Your task to perform on an android device: Search for "bose soundlink" on newegg, select the first entry, and add it to the cart. Image 0: 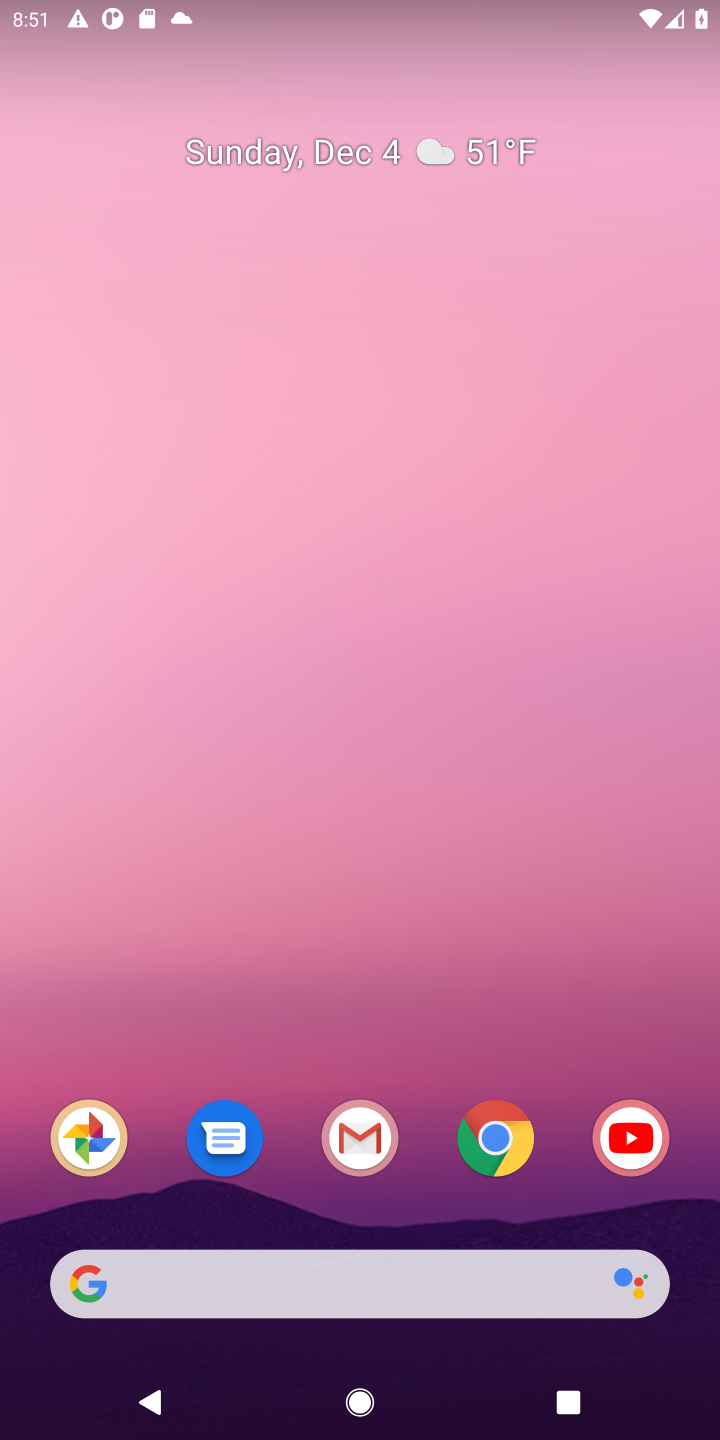
Step 0: click (498, 1126)
Your task to perform on an android device: Search for "bose soundlink" on newegg, select the first entry, and add it to the cart. Image 1: 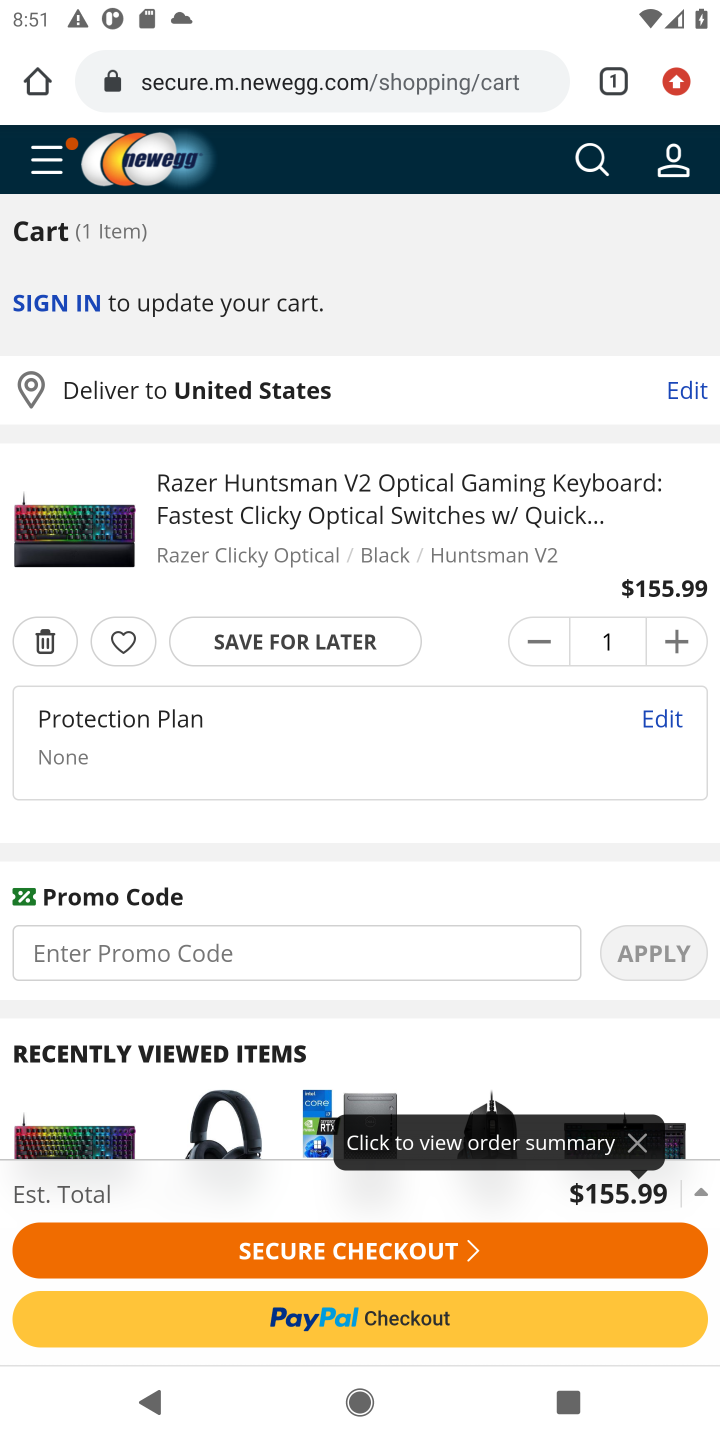
Step 1: click (595, 159)
Your task to perform on an android device: Search for "bose soundlink" on newegg, select the first entry, and add it to the cart. Image 2: 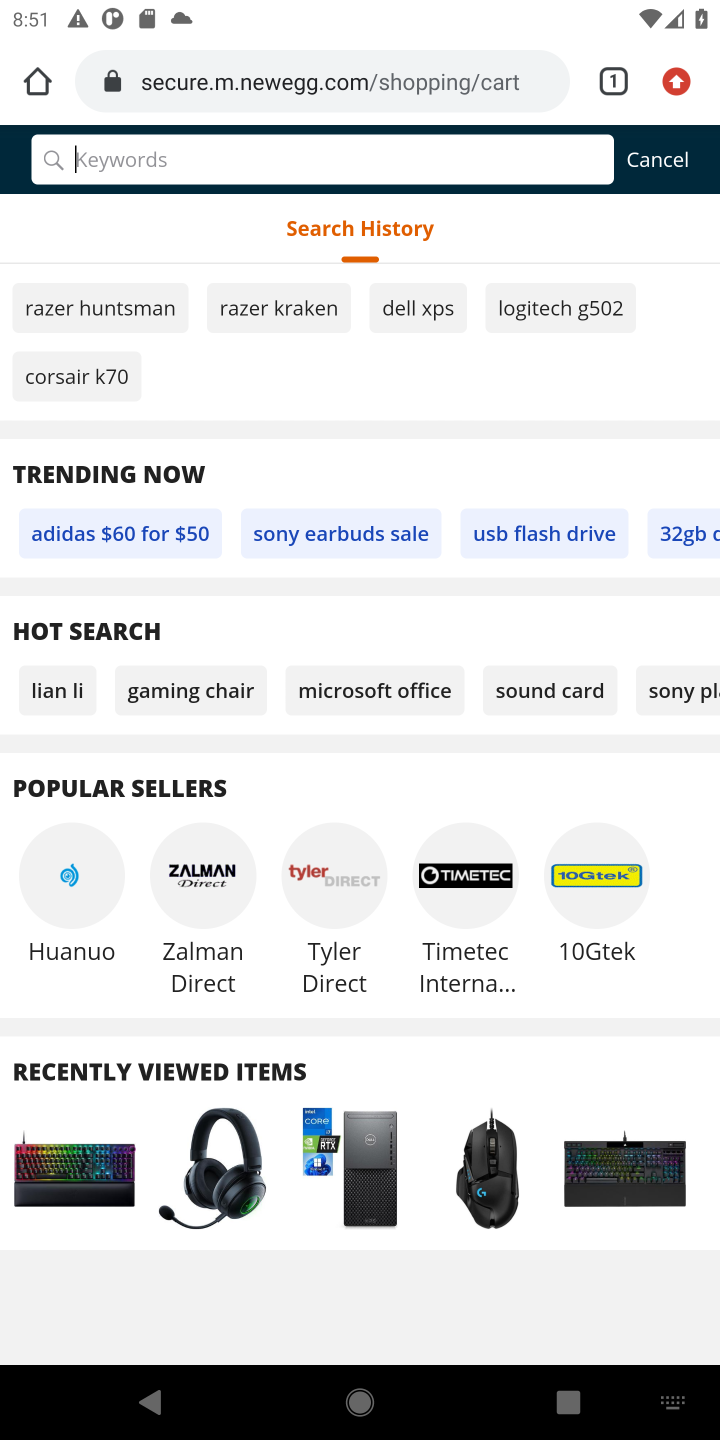
Step 2: press enter
Your task to perform on an android device: Search for "bose soundlink" on newegg, select the first entry, and add it to the cart. Image 3: 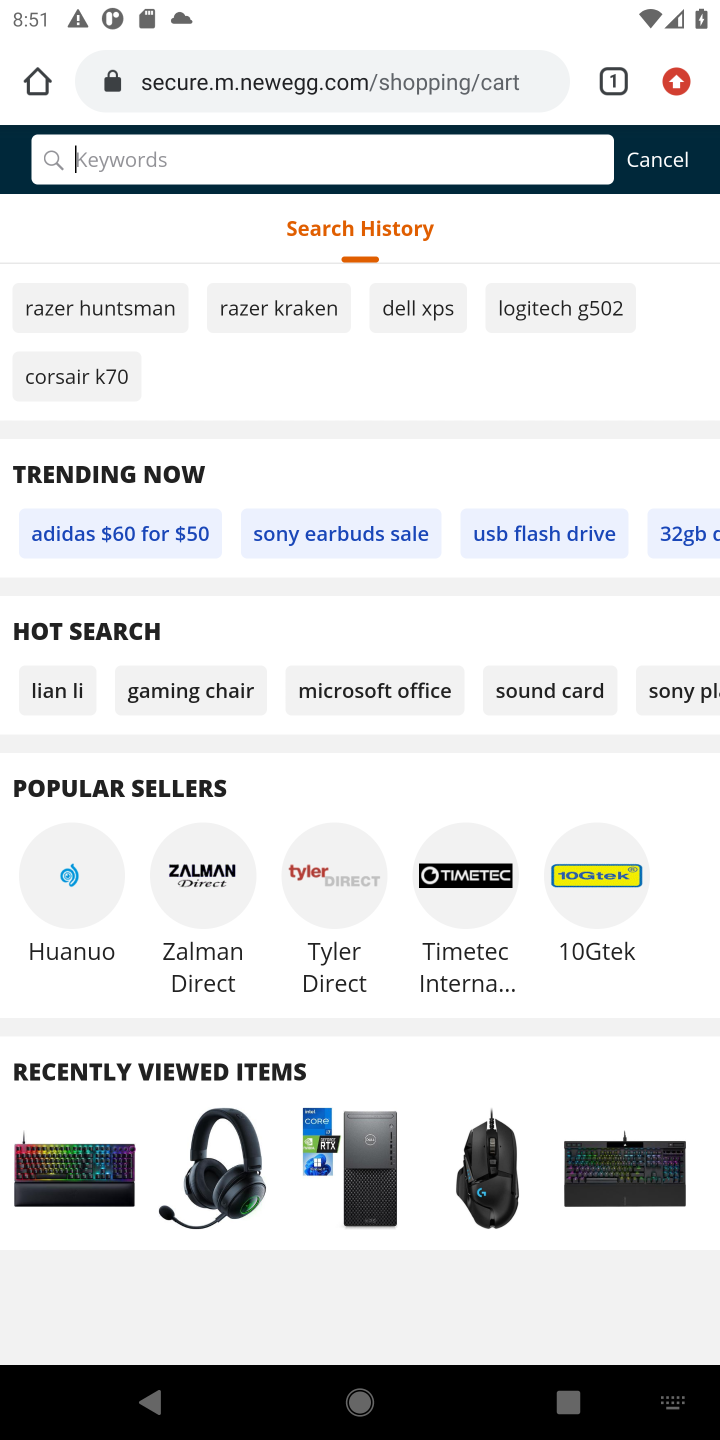
Step 3: type "bose soundlink"
Your task to perform on an android device: Search for "bose soundlink" on newegg, select the first entry, and add it to the cart. Image 4: 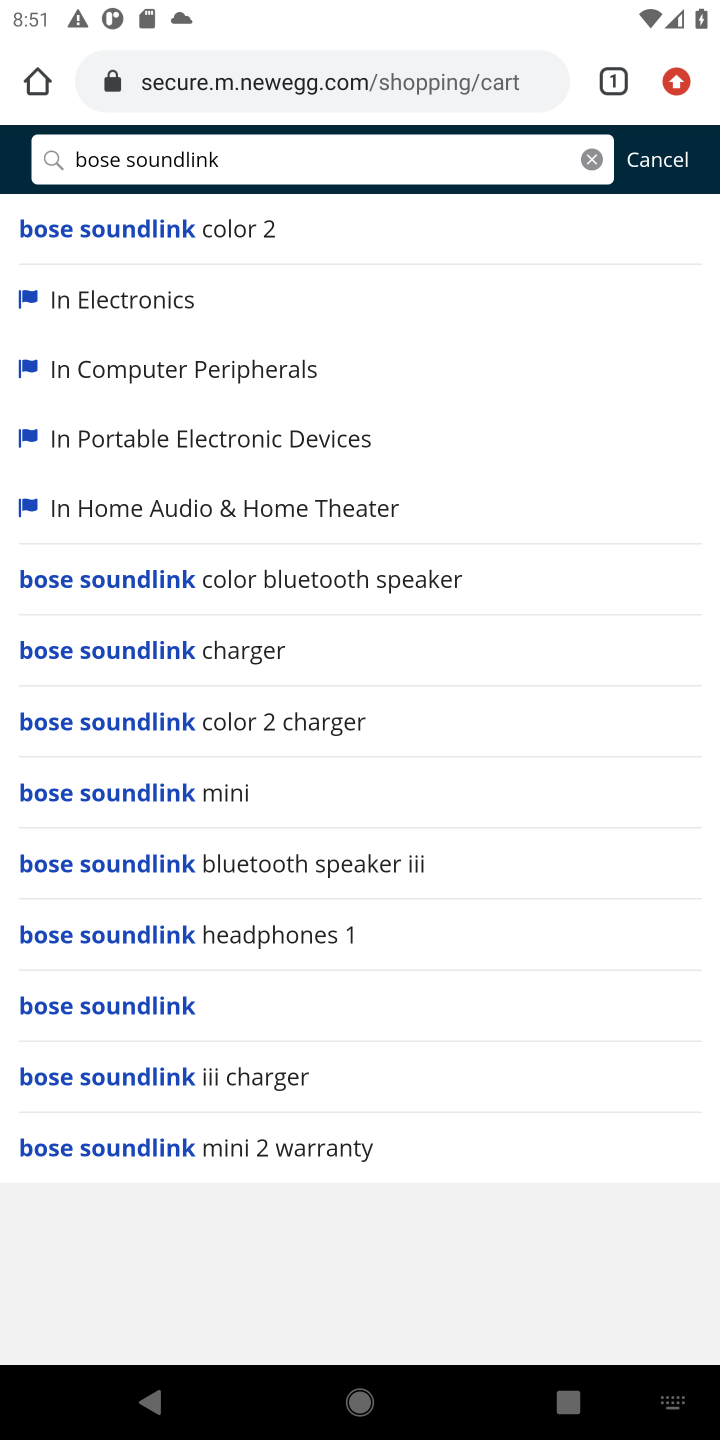
Step 4: click (170, 1002)
Your task to perform on an android device: Search for "bose soundlink" on newegg, select the first entry, and add it to the cart. Image 5: 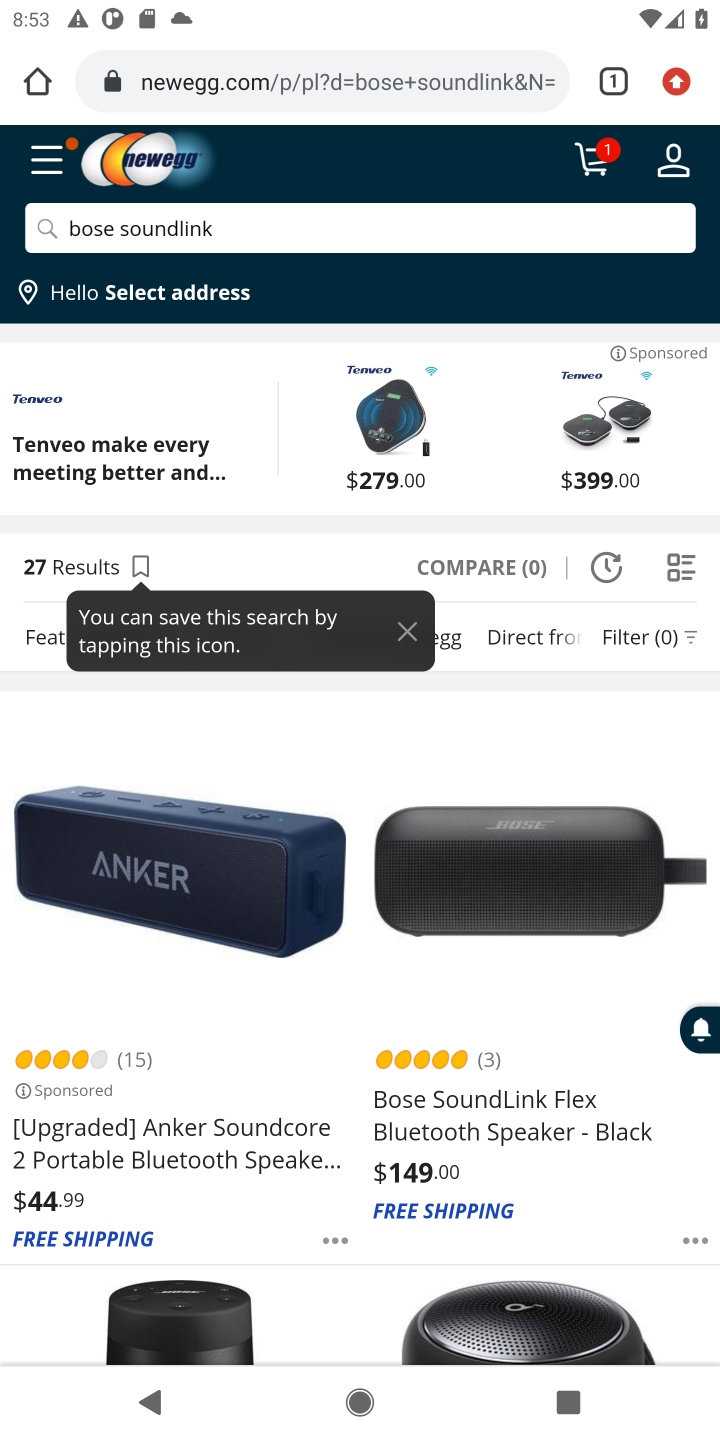
Step 5: click (518, 835)
Your task to perform on an android device: Search for "bose soundlink" on newegg, select the first entry, and add it to the cart. Image 6: 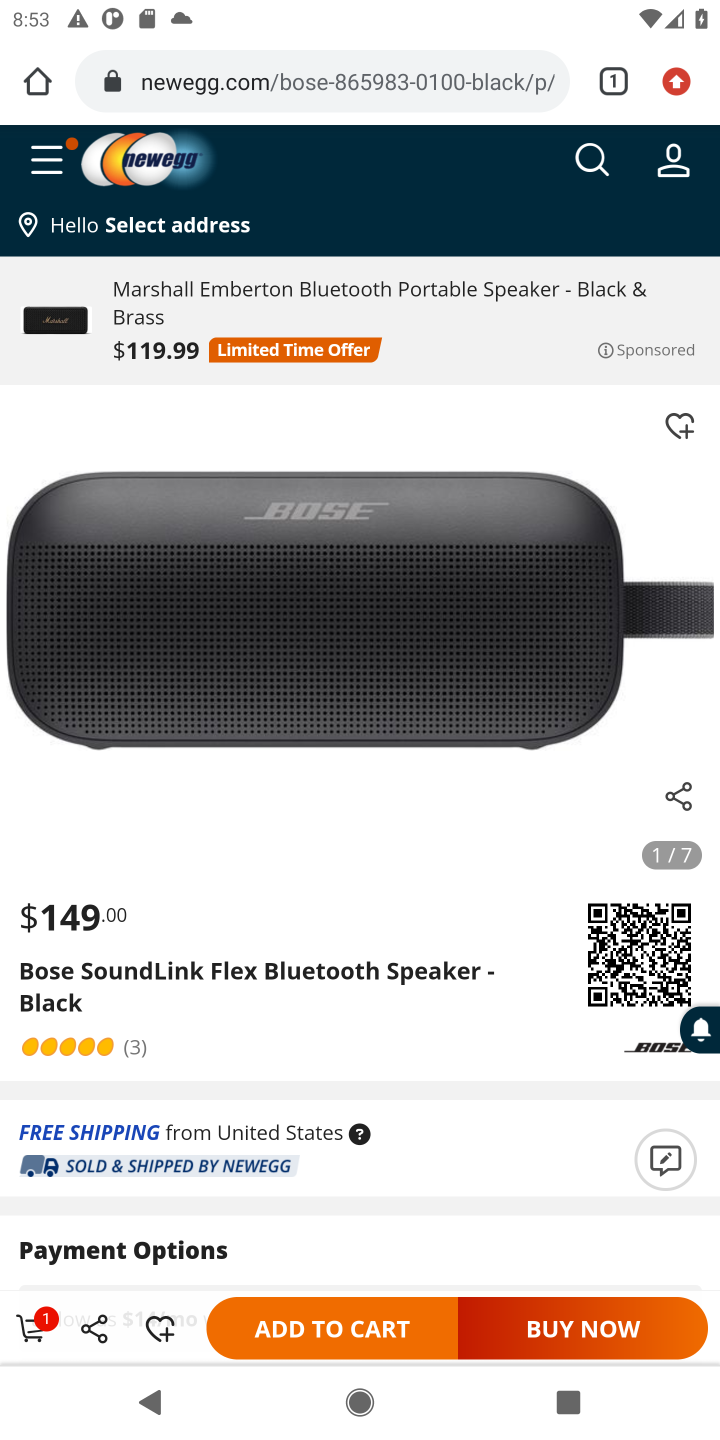
Step 6: click (314, 1323)
Your task to perform on an android device: Search for "bose soundlink" on newegg, select the first entry, and add it to the cart. Image 7: 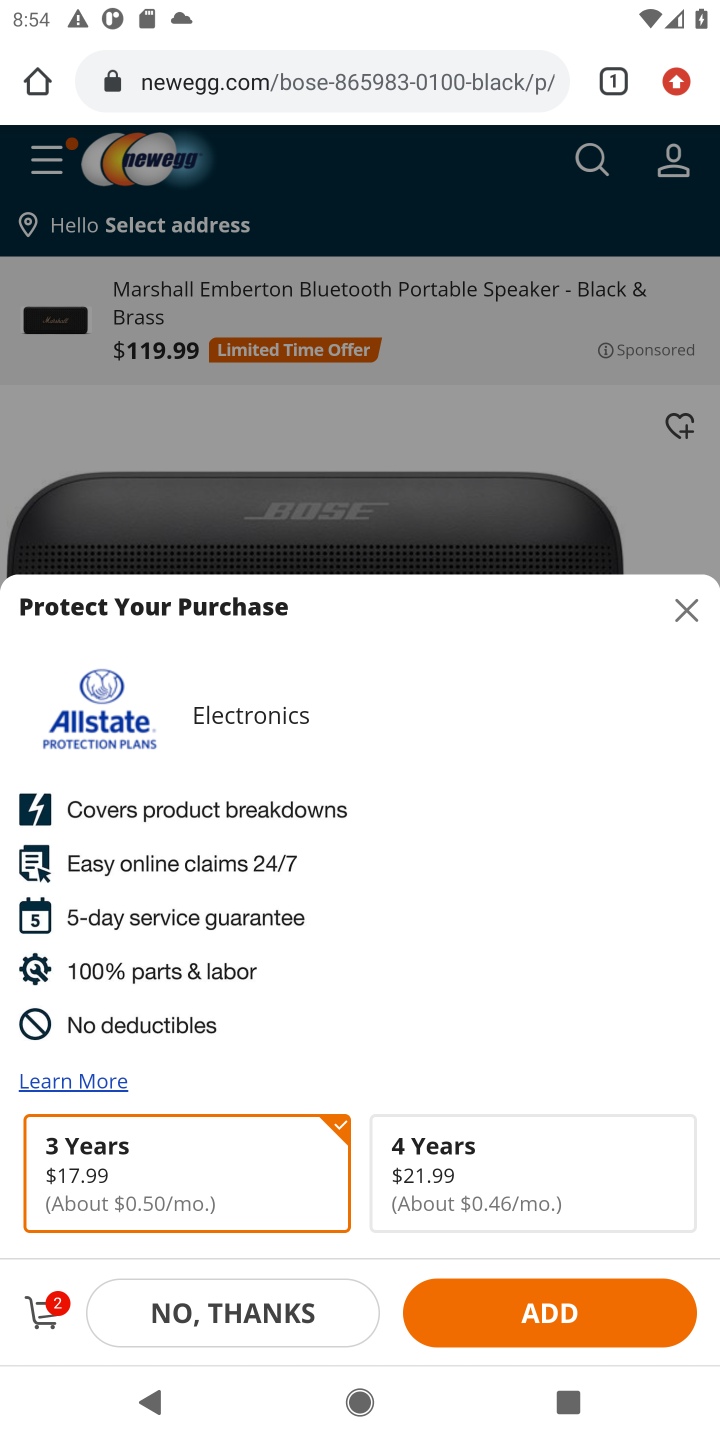
Step 7: click (686, 609)
Your task to perform on an android device: Search for "bose soundlink" on newegg, select the first entry, and add it to the cart. Image 8: 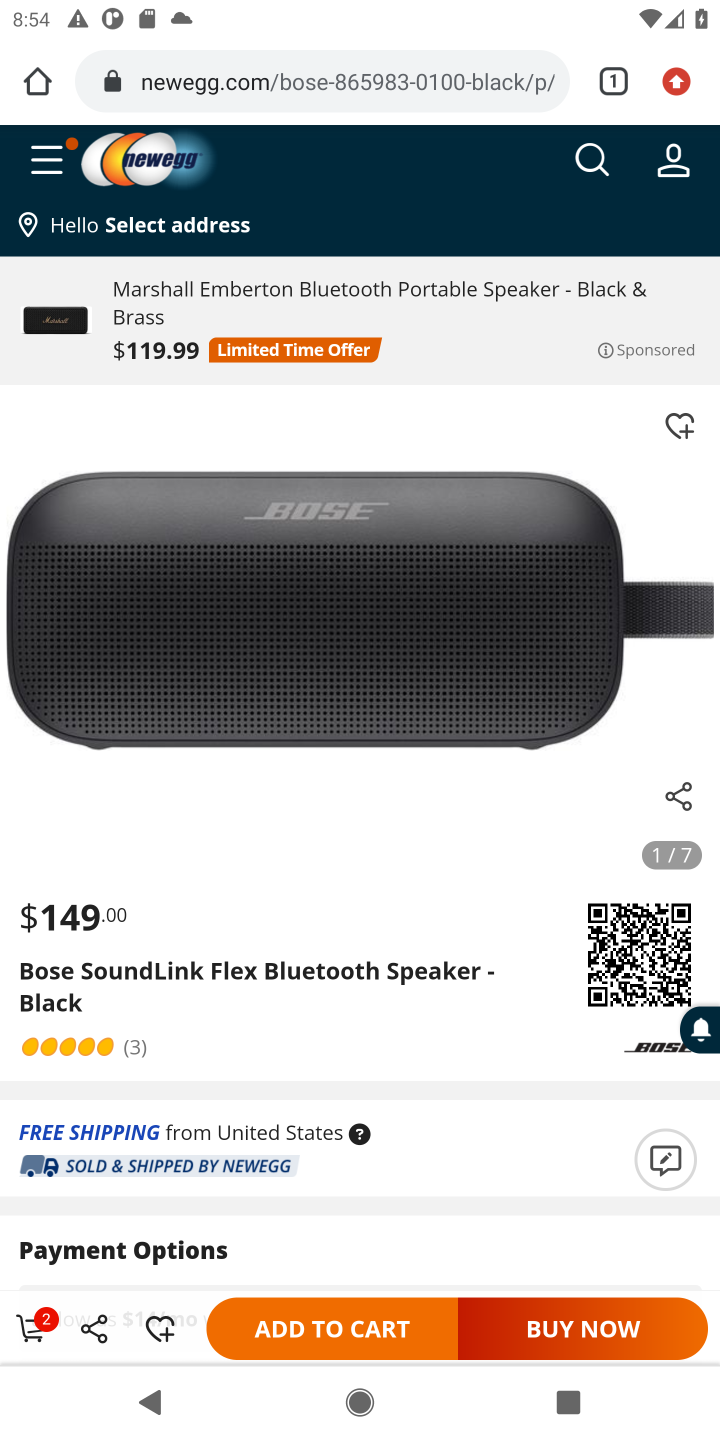
Step 8: click (25, 1322)
Your task to perform on an android device: Search for "bose soundlink" on newegg, select the first entry, and add it to the cart. Image 9: 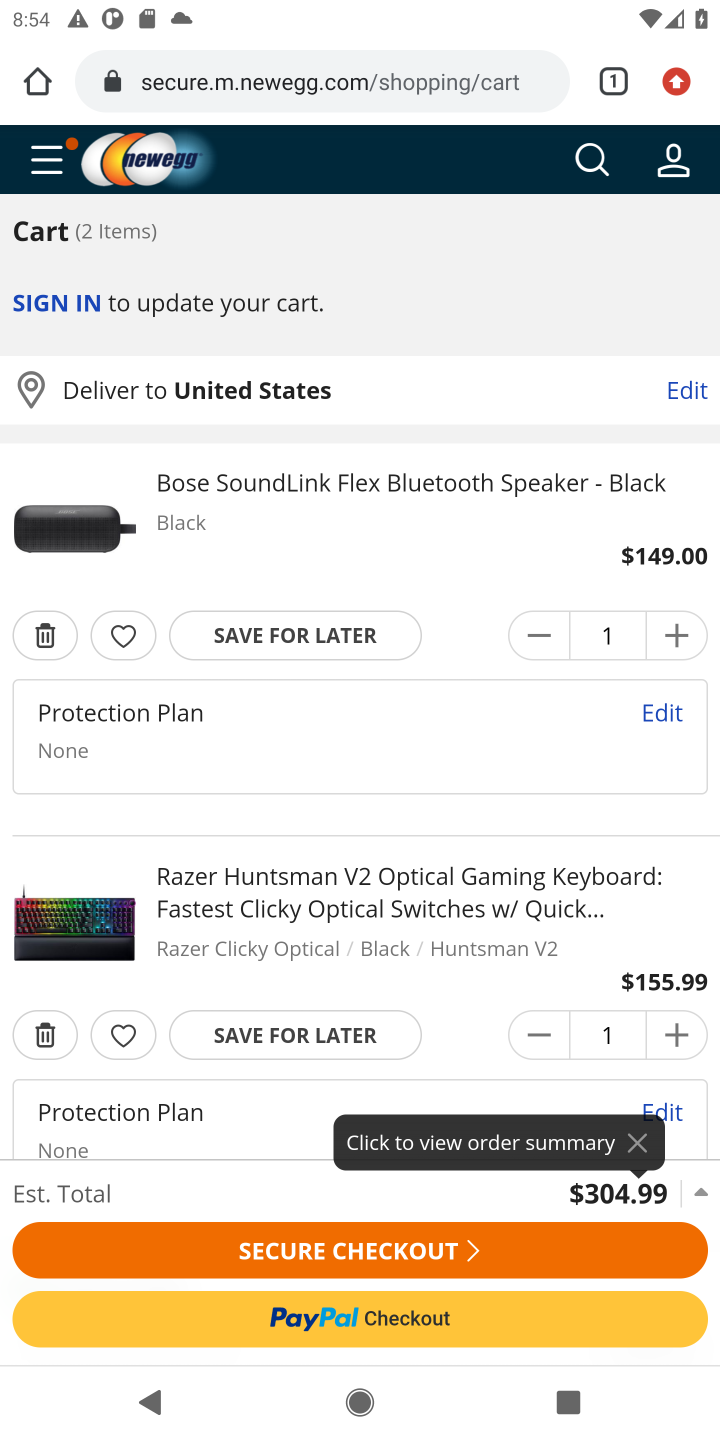
Step 9: task complete